Your task to perform on an android device: open chrome privacy settings Image 0: 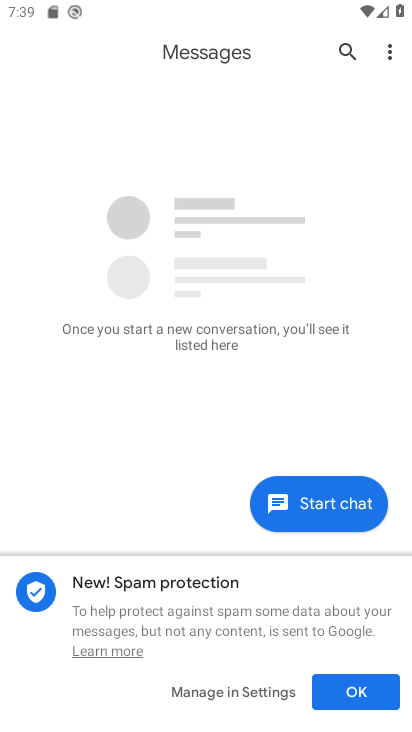
Step 0: press back button
Your task to perform on an android device: open chrome privacy settings Image 1: 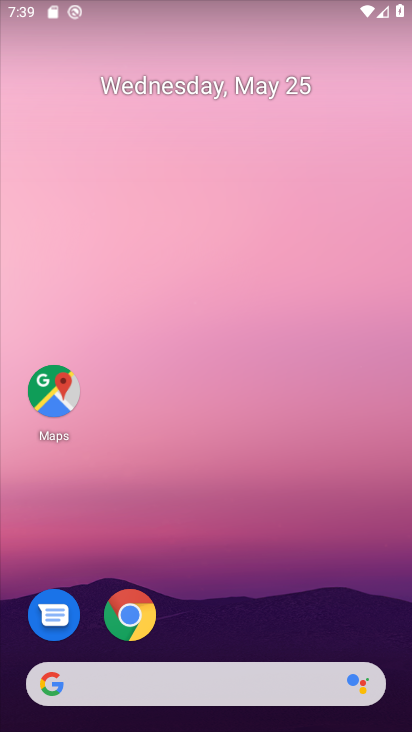
Step 1: drag from (208, 582) to (184, 3)
Your task to perform on an android device: open chrome privacy settings Image 2: 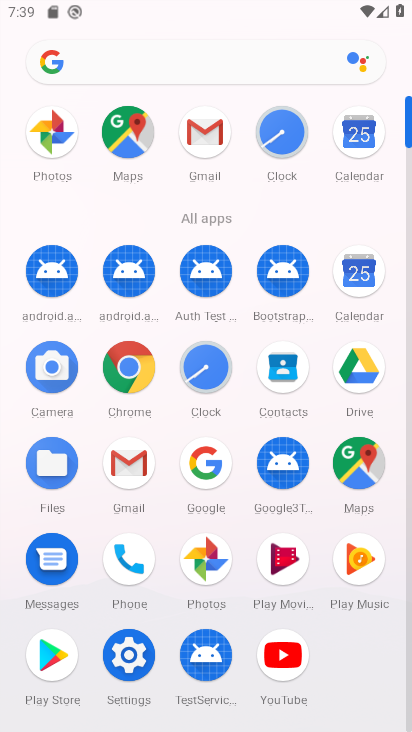
Step 2: drag from (11, 543) to (0, 275)
Your task to perform on an android device: open chrome privacy settings Image 3: 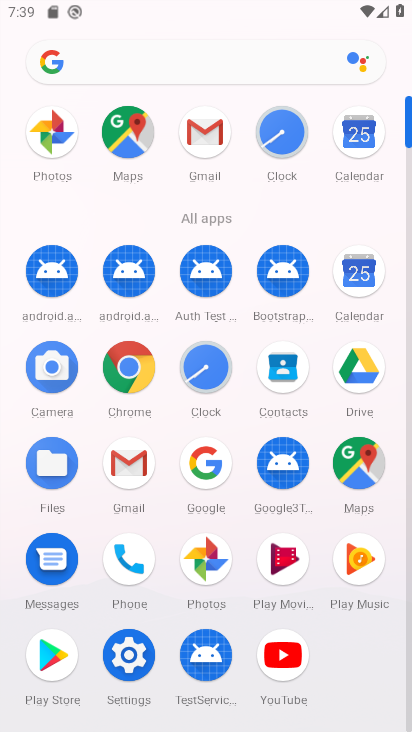
Step 3: click (125, 363)
Your task to perform on an android device: open chrome privacy settings Image 4: 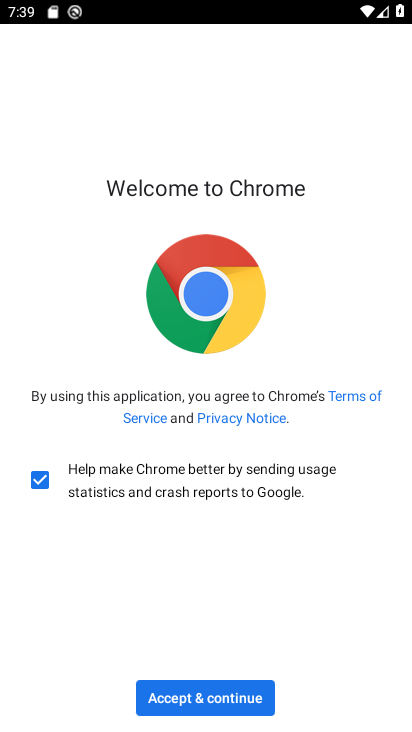
Step 4: click (243, 700)
Your task to perform on an android device: open chrome privacy settings Image 5: 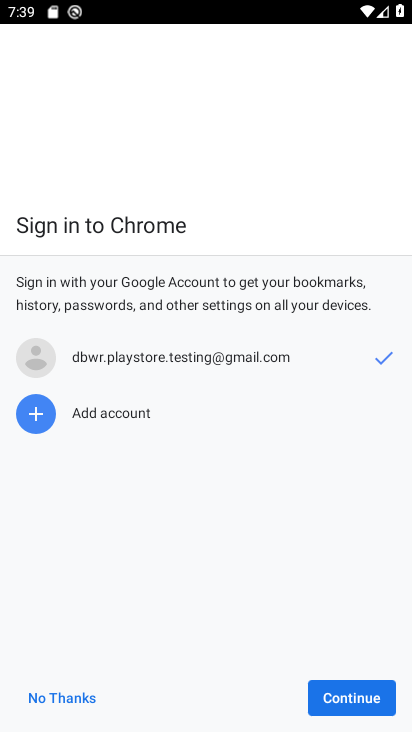
Step 5: click (365, 695)
Your task to perform on an android device: open chrome privacy settings Image 6: 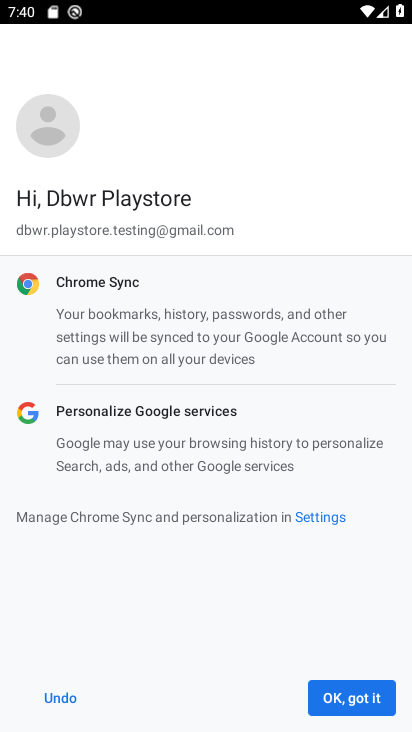
Step 6: click (365, 695)
Your task to perform on an android device: open chrome privacy settings Image 7: 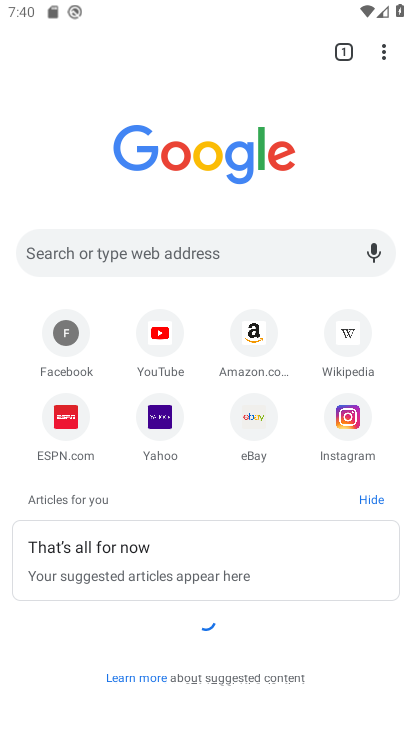
Step 7: task complete